Your task to perform on an android device: Search for sushi restaurants on Maps Image 0: 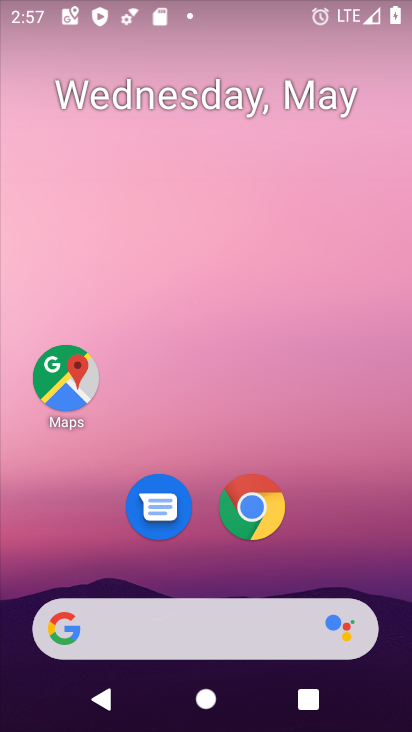
Step 0: click (64, 380)
Your task to perform on an android device: Search for sushi restaurants on Maps Image 1: 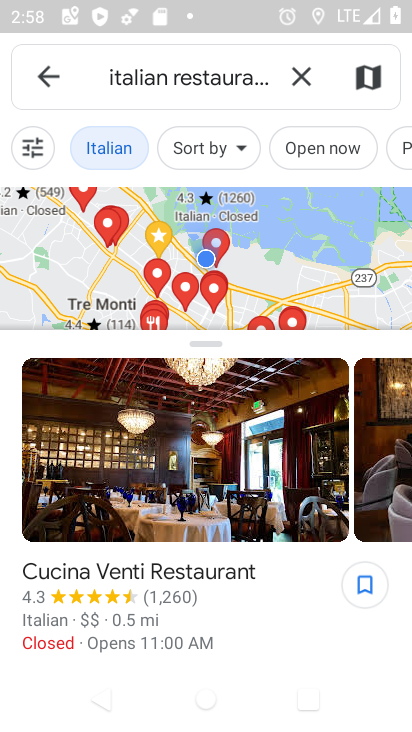
Step 1: click (297, 73)
Your task to perform on an android device: Search for sushi restaurants on Maps Image 2: 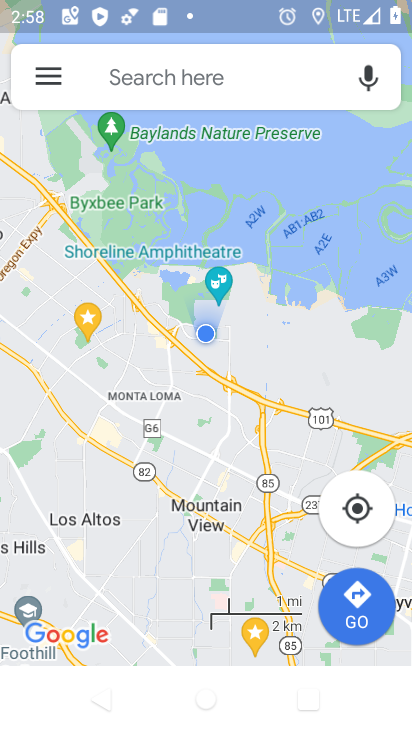
Step 2: click (255, 78)
Your task to perform on an android device: Search for sushi restaurants on Maps Image 3: 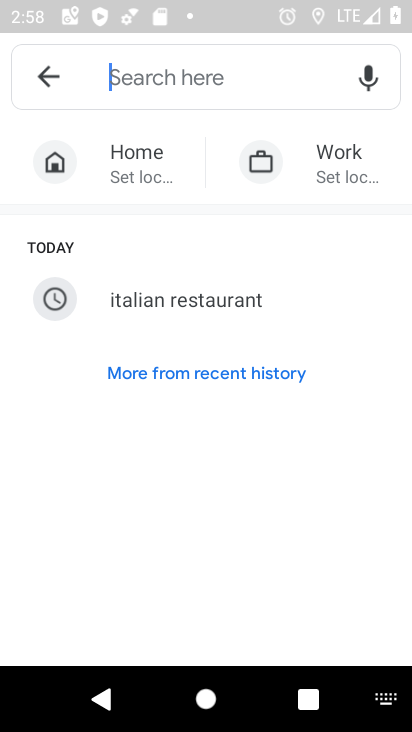
Step 3: type "sushi restaurants"
Your task to perform on an android device: Search for sushi restaurants on Maps Image 4: 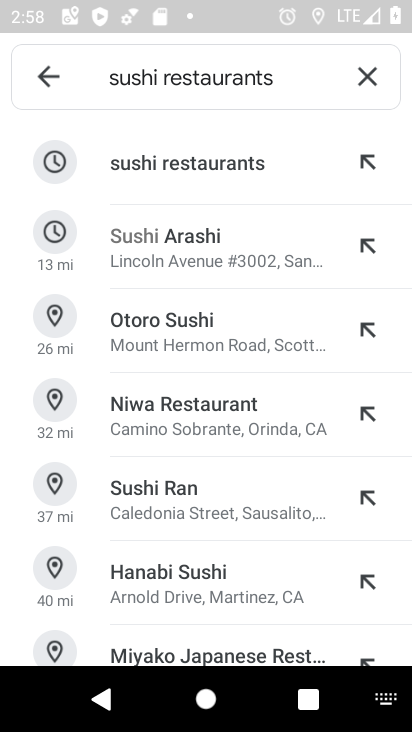
Step 4: click (205, 164)
Your task to perform on an android device: Search for sushi restaurants on Maps Image 5: 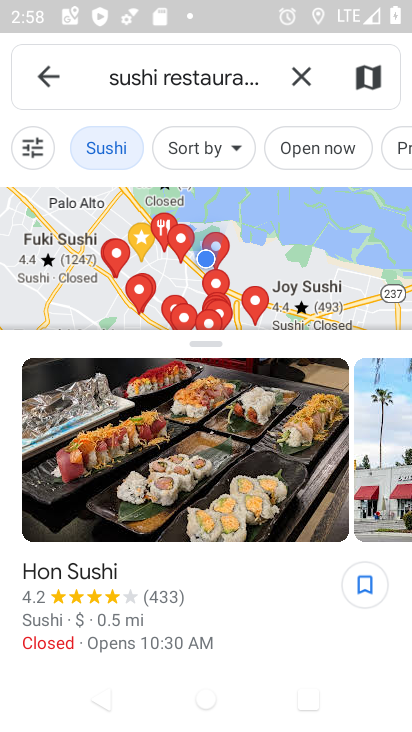
Step 5: task complete